Your task to perform on an android device: Open Youtube and go to the subscriptions tab Image 0: 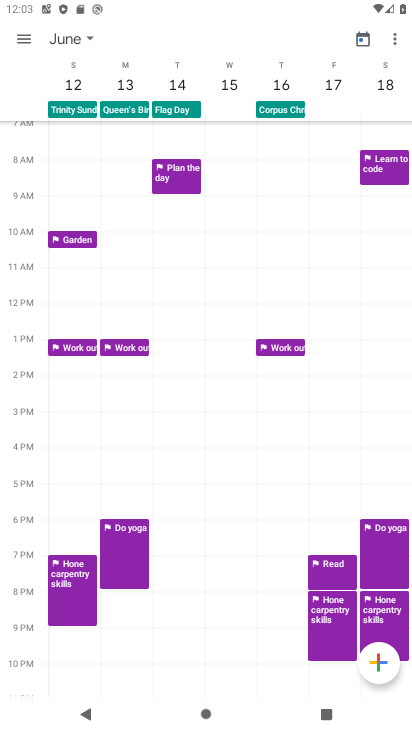
Step 0: press home button
Your task to perform on an android device: Open Youtube and go to the subscriptions tab Image 1: 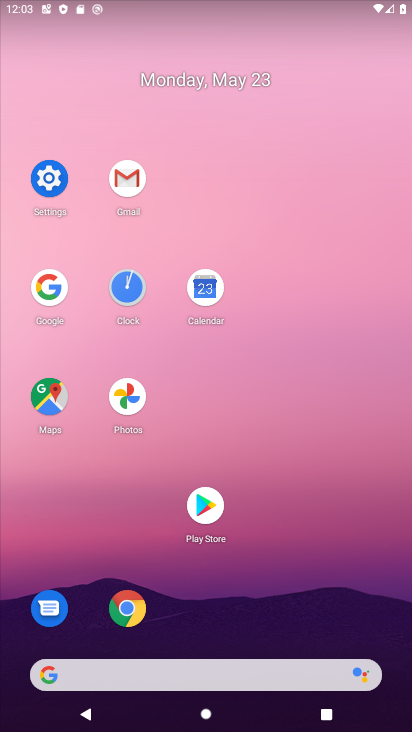
Step 1: drag from (248, 596) to (211, 210)
Your task to perform on an android device: Open Youtube and go to the subscriptions tab Image 2: 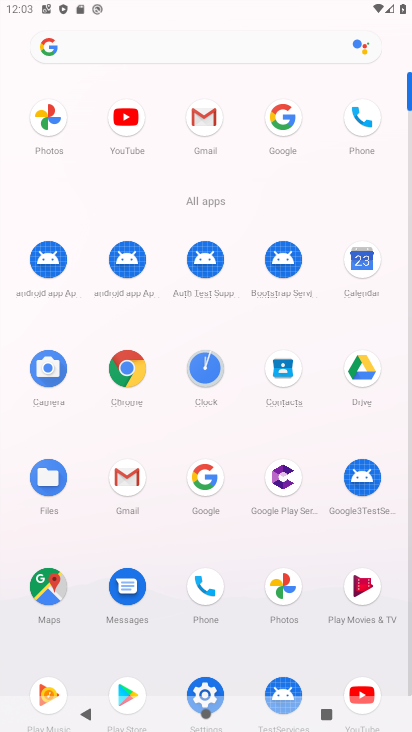
Step 2: click (116, 127)
Your task to perform on an android device: Open Youtube and go to the subscriptions tab Image 3: 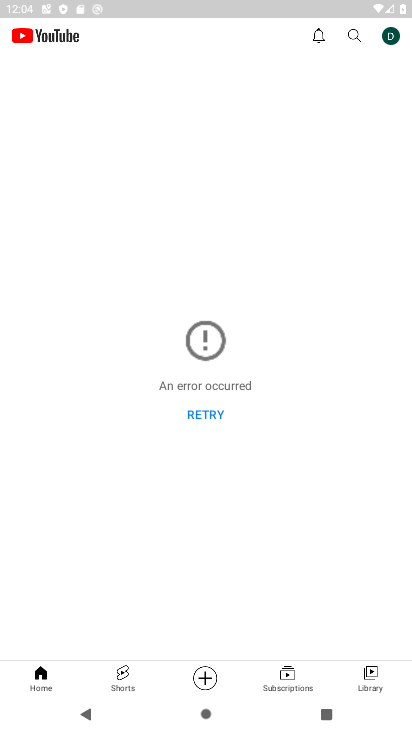
Step 3: click (295, 674)
Your task to perform on an android device: Open Youtube and go to the subscriptions tab Image 4: 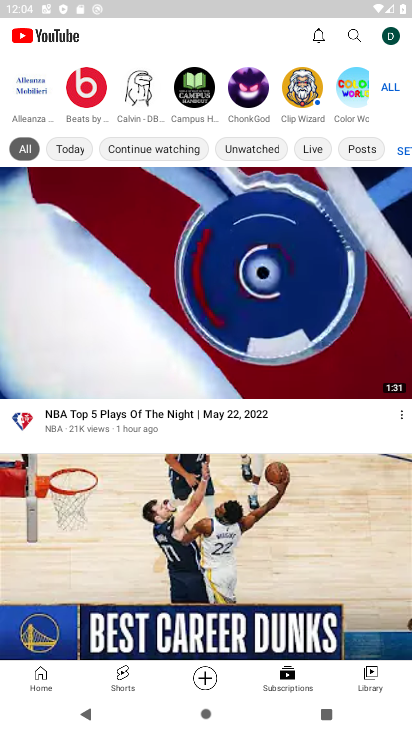
Step 4: task complete